Your task to perform on an android device: Open the map Image 0: 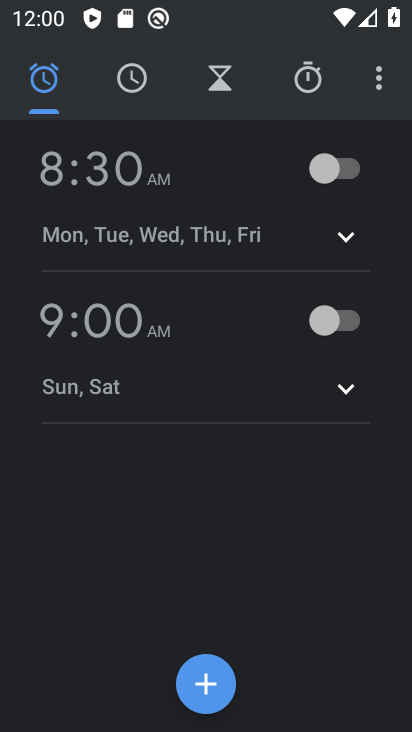
Step 0: press home button
Your task to perform on an android device: Open the map Image 1: 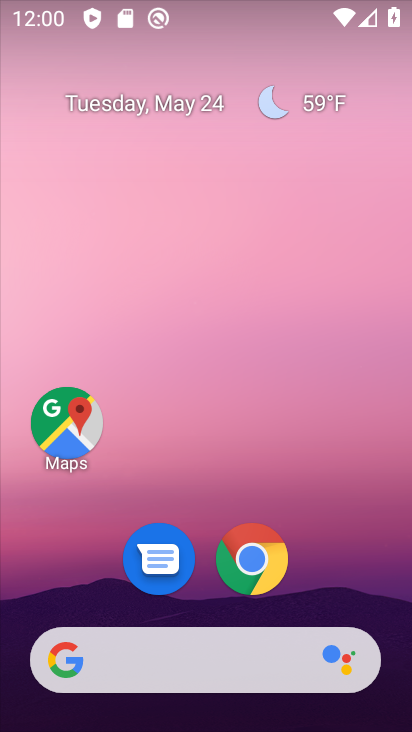
Step 1: click (61, 427)
Your task to perform on an android device: Open the map Image 2: 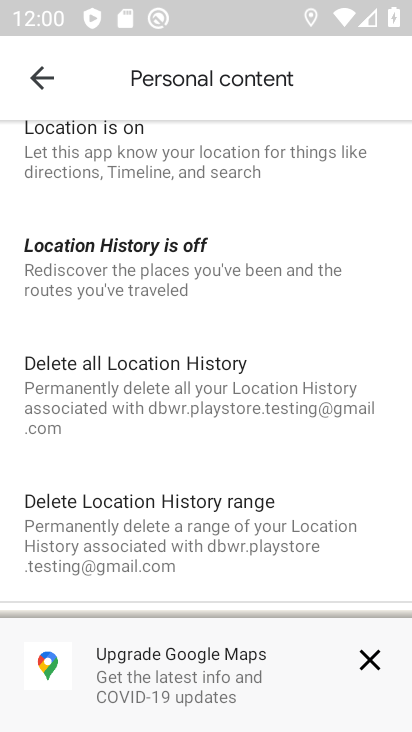
Step 2: click (41, 81)
Your task to perform on an android device: Open the map Image 3: 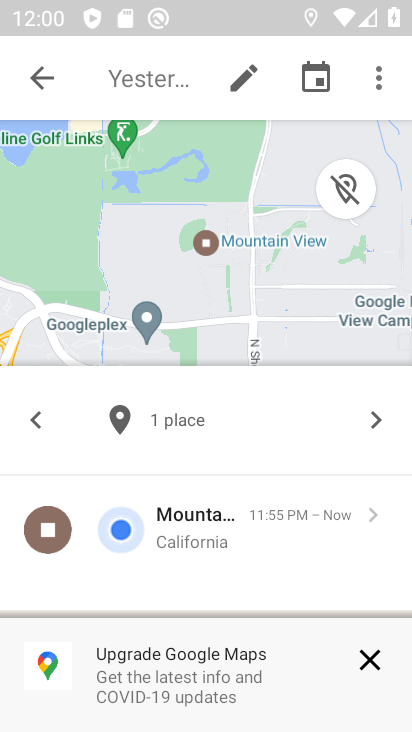
Step 3: click (41, 84)
Your task to perform on an android device: Open the map Image 4: 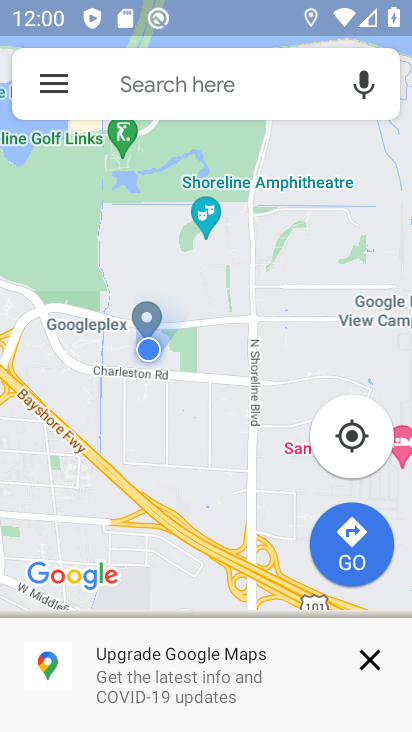
Step 4: task complete